Your task to perform on an android device: turn on location history Image 0: 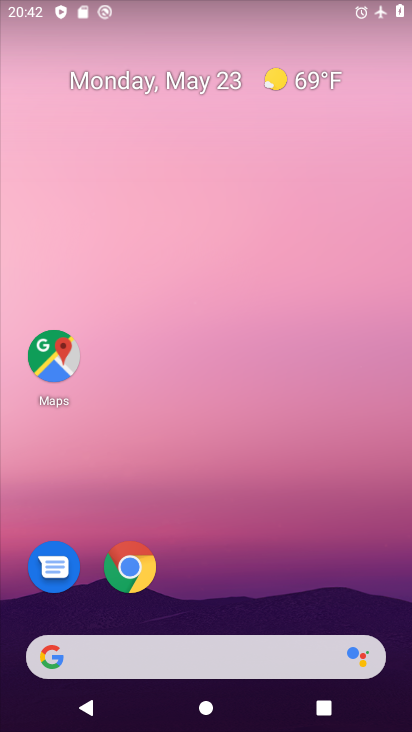
Step 0: drag from (215, 600) to (249, 4)
Your task to perform on an android device: turn on location history Image 1: 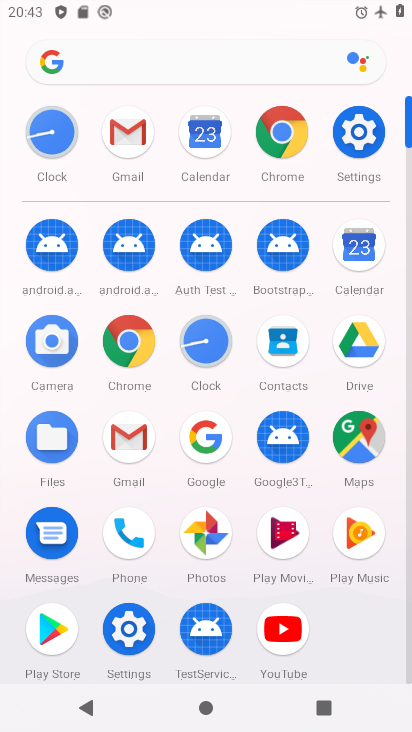
Step 1: click (137, 635)
Your task to perform on an android device: turn on location history Image 2: 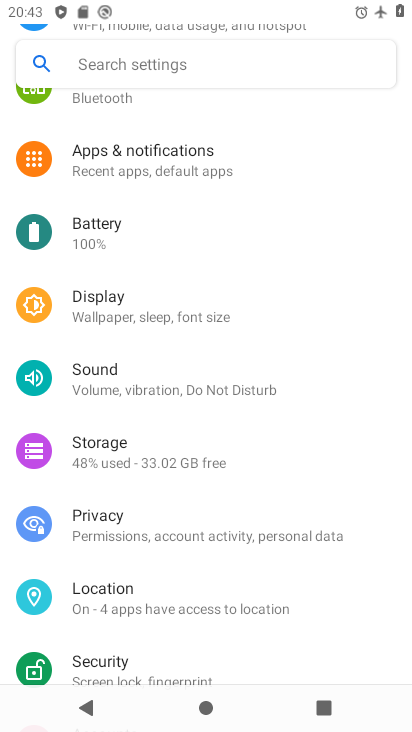
Step 2: click (126, 583)
Your task to perform on an android device: turn on location history Image 3: 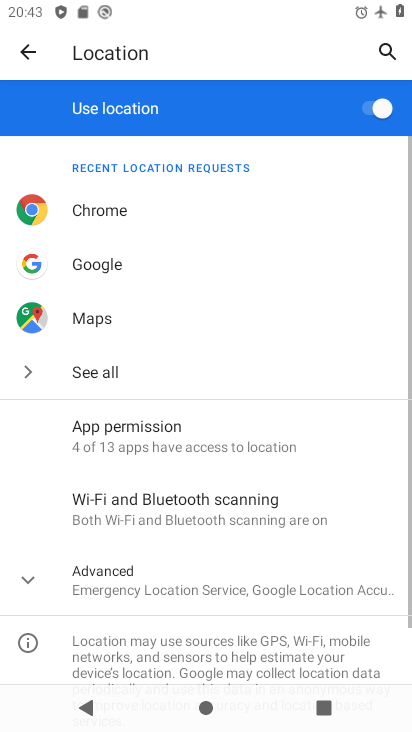
Step 3: click (176, 587)
Your task to perform on an android device: turn on location history Image 4: 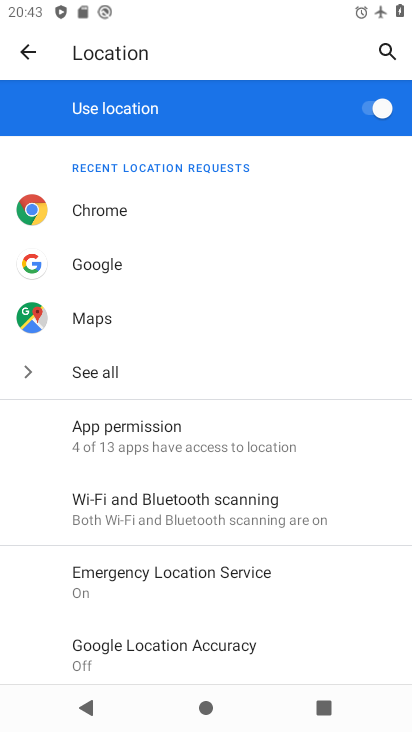
Step 4: drag from (186, 594) to (217, 344)
Your task to perform on an android device: turn on location history Image 5: 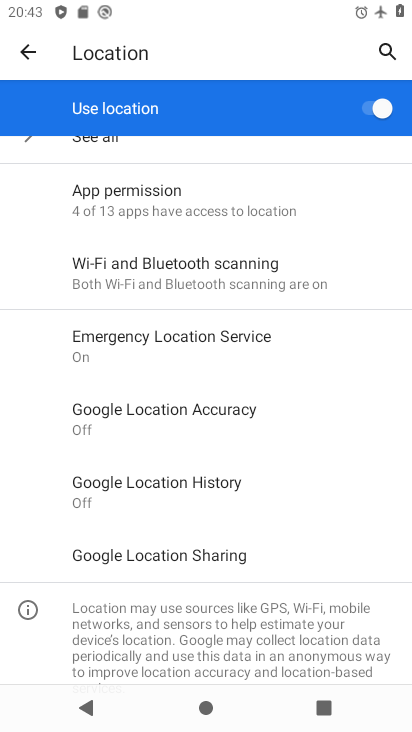
Step 5: click (176, 491)
Your task to perform on an android device: turn on location history Image 6: 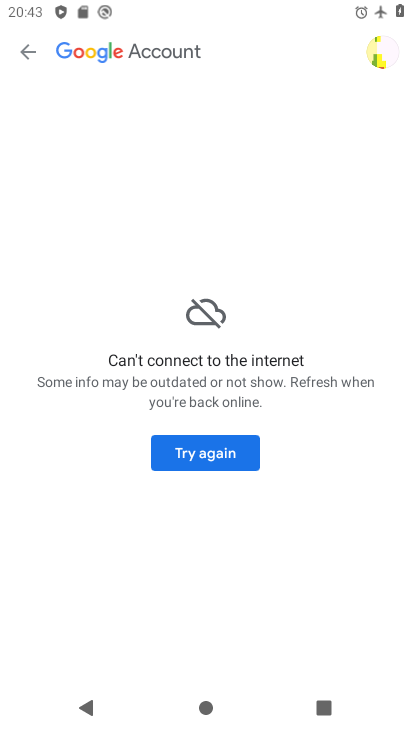
Step 6: click (213, 445)
Your task to perform on an android device: turn on location history Image 7: 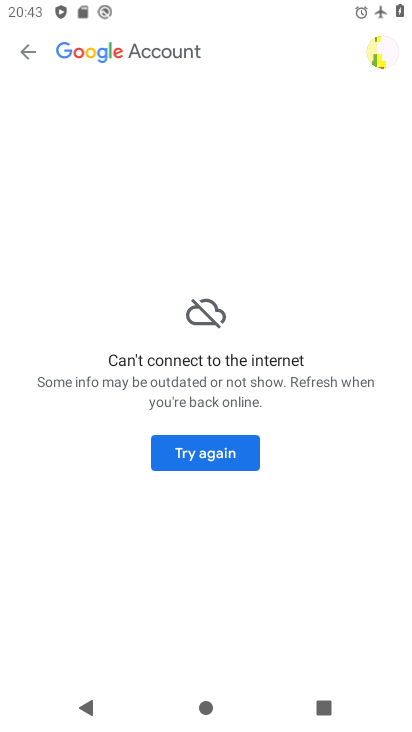
Step 7: click (212, 446)
Your task to perform on an android device: turn on location history Image 8: 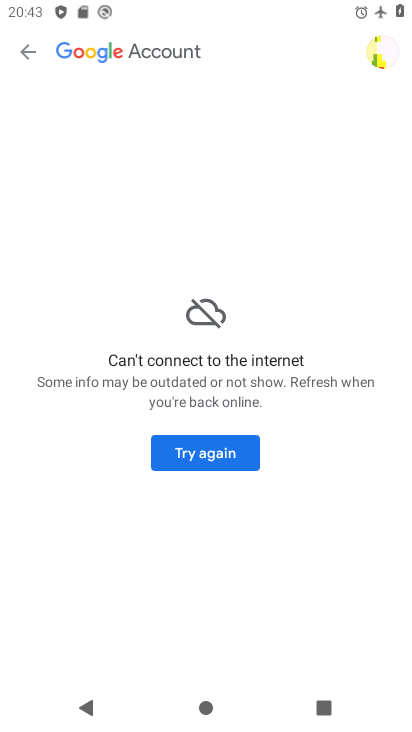
Step 8: task complete